Your task to perform on an android device: Open calendar and show me the fourth week of next month Image 0: 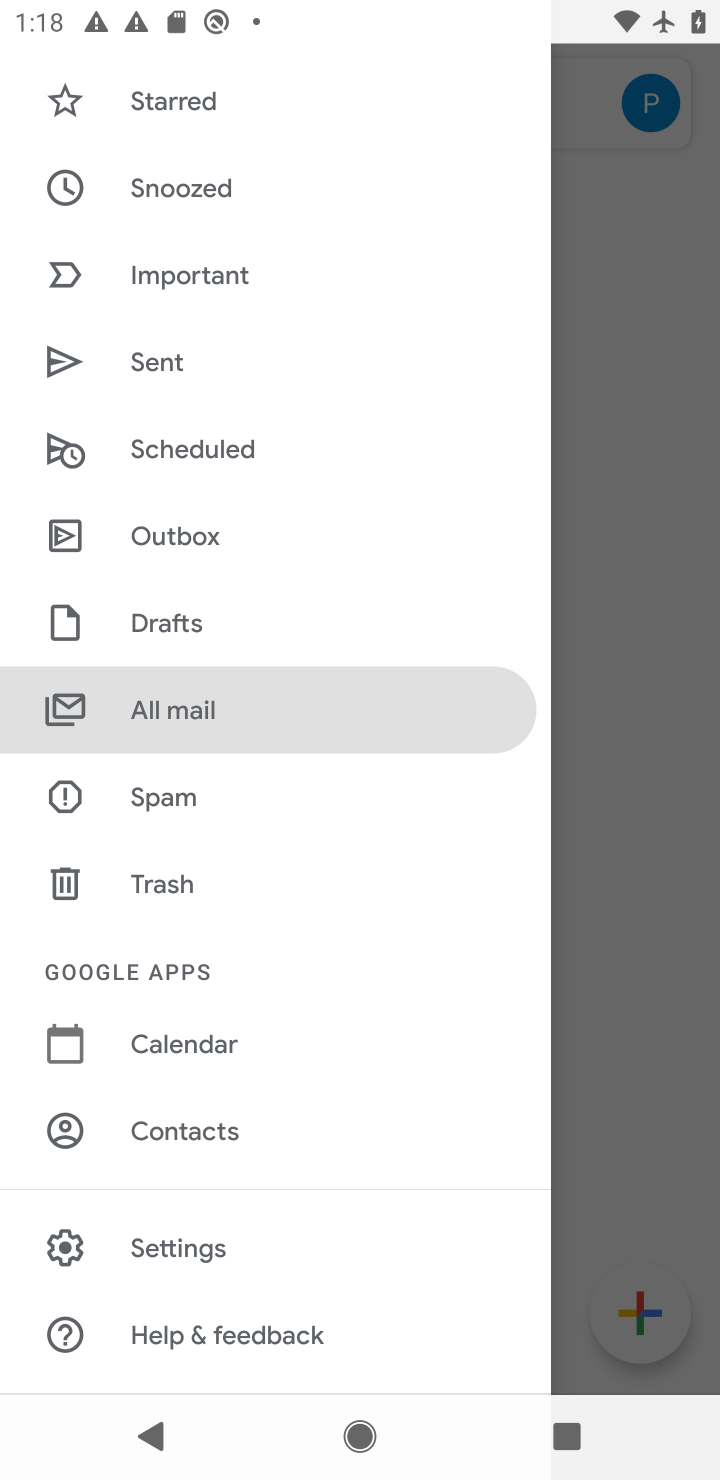
Step 0: press home button
Your task to perform on an android device: Open calendar and show me the fourth week of next month Image 1: 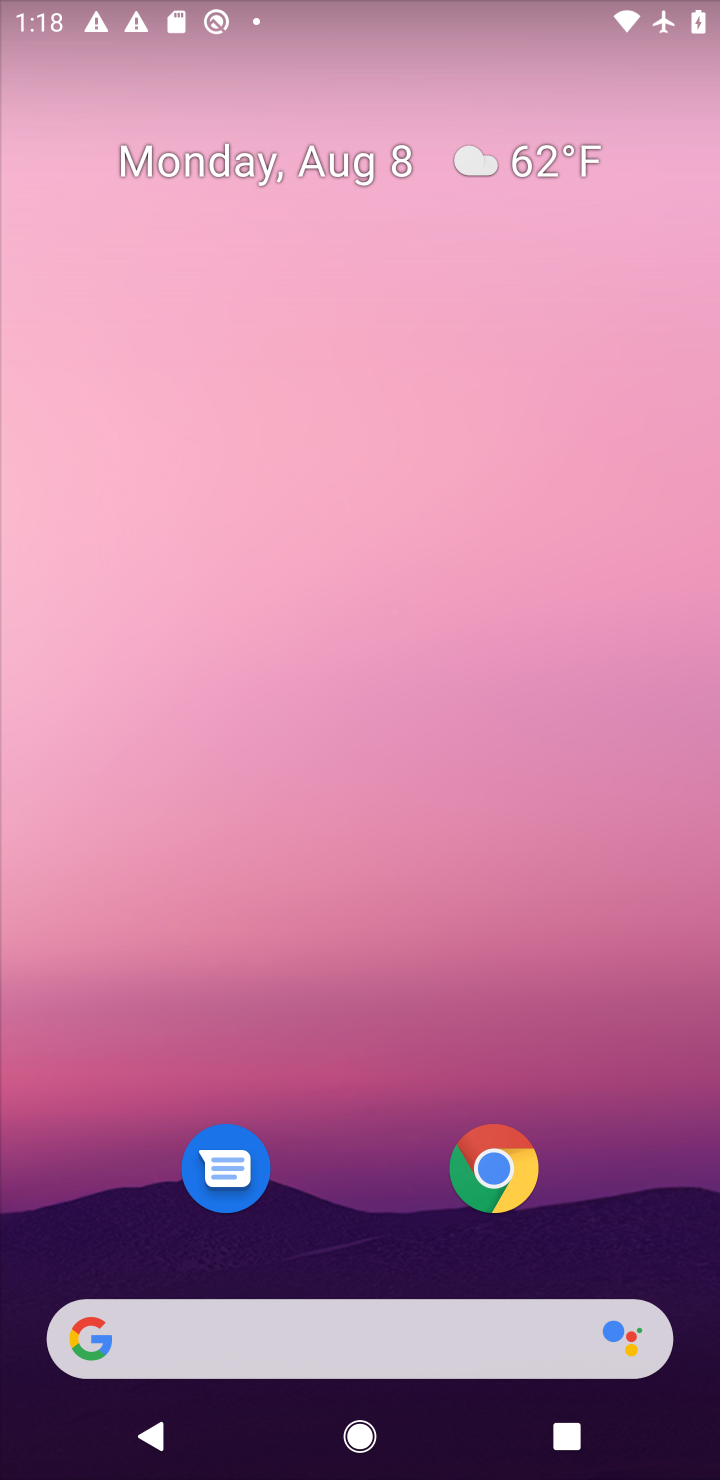
Step 1: drag from (353, 1275) to (353, 215)
Your task to perform on an android device: Open calendar and show me the fourth week of next month Image 2: 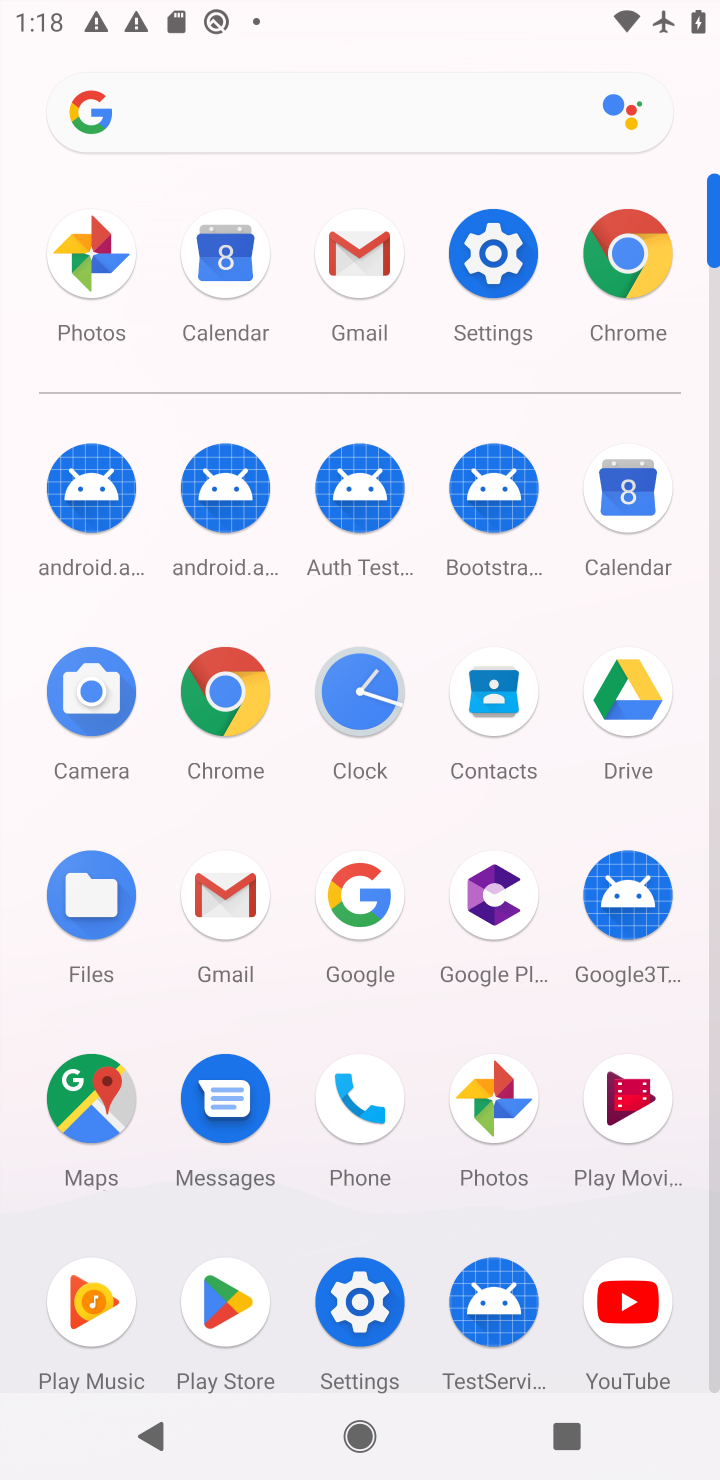
Step 2: click (605, 557)
Your task to perform on an android device: Open calendar and show me the fourth week of next month Image 3: 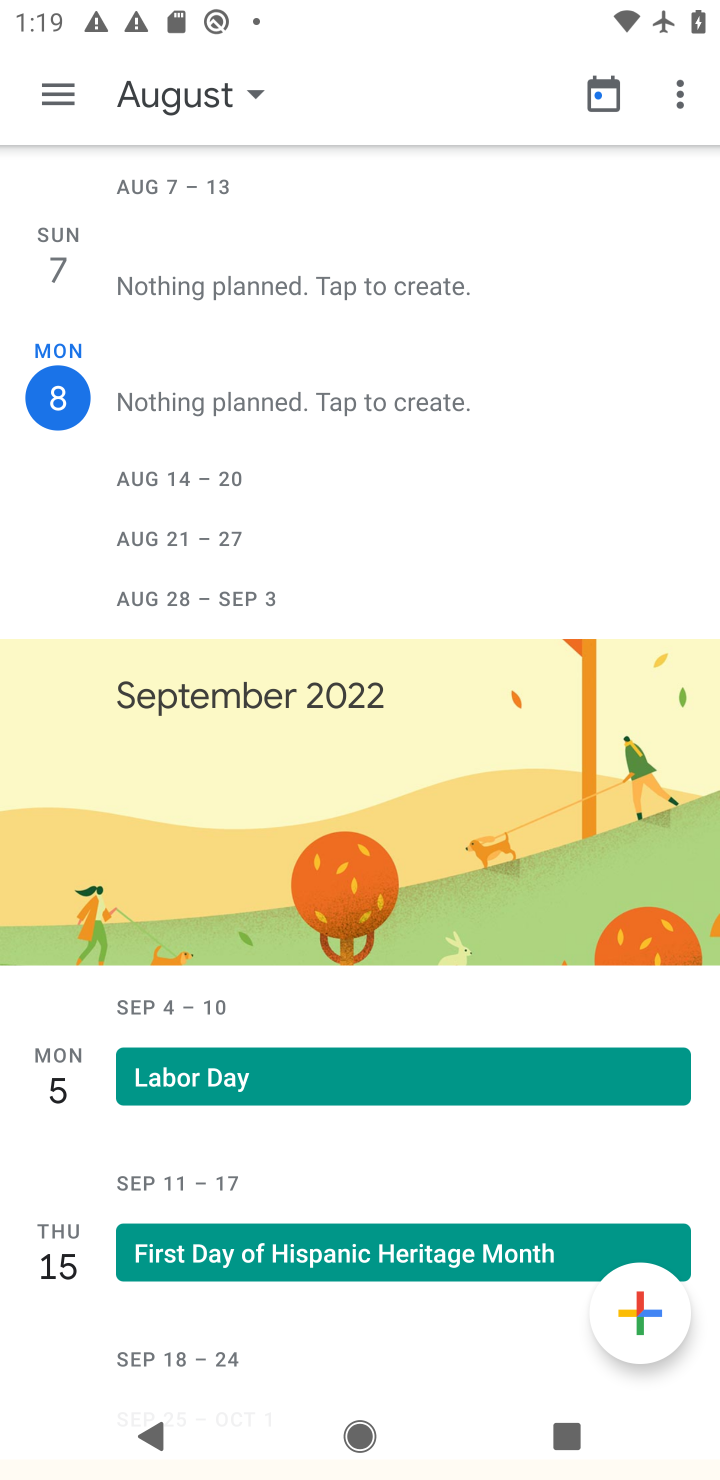
Step 3: task complete